Your task to perform on an android device: Find coffee shops on Maps Image 0: 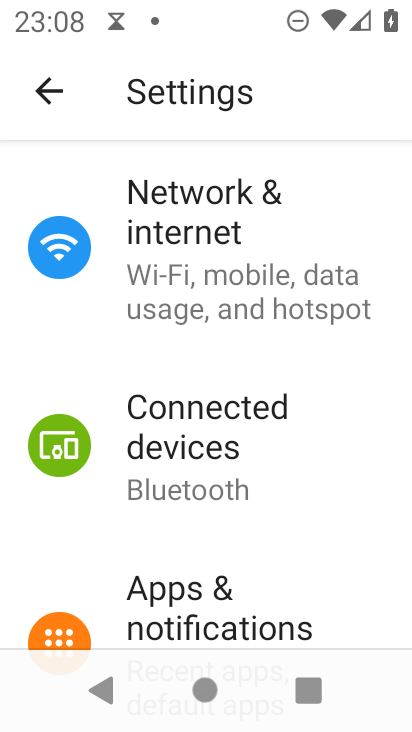
Step 0: press home button
Your task to perform on an android device: Find coffee shops on Maps Image 1: 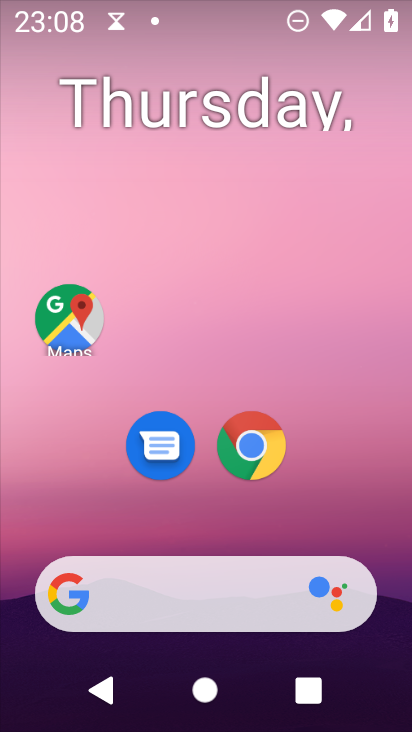
Step 1: drag from (230, 724) to (234, 80)
Your task to perform on an android device: Find coffee shops on Maps Image 2: 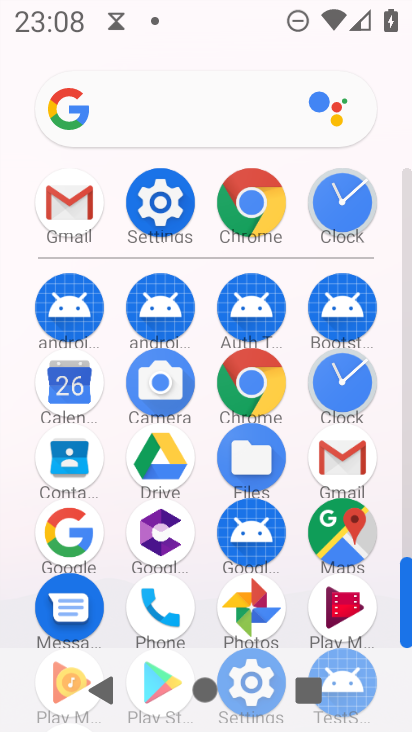
Step 2: click (338, 532)
Your task to perform on an android device: Find coffee shops on Maps Image 3: 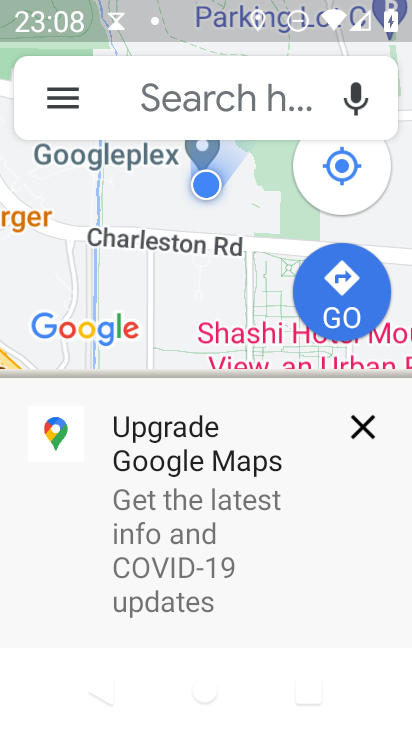
Step 3: click (208, 93)
Your task to perform on an android device: Find coffee shops on Maps Image 4: 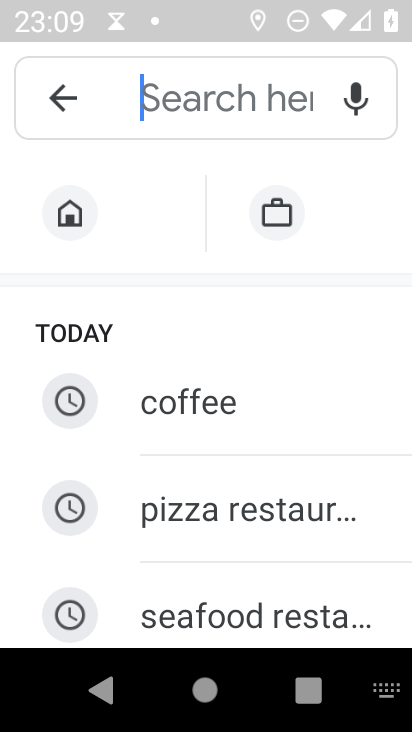
Step 4: type "coffee shops"
Your task to perform on an android device: Find coffee shops on Maps Image 5: 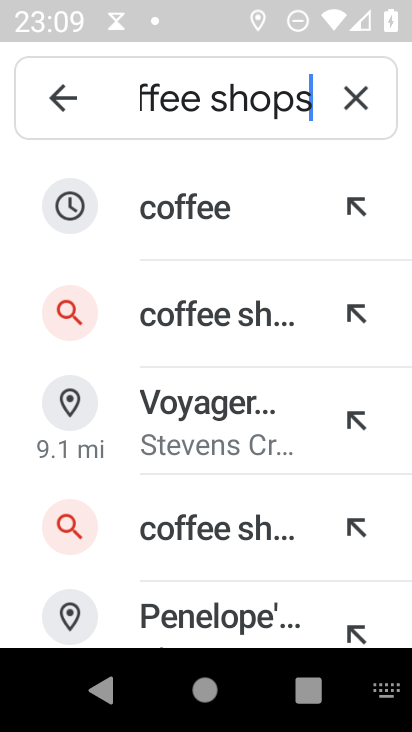
Step 5: click (192, 318)
Your task to perform on an android device: Find coffee shops on Maps Image 6: 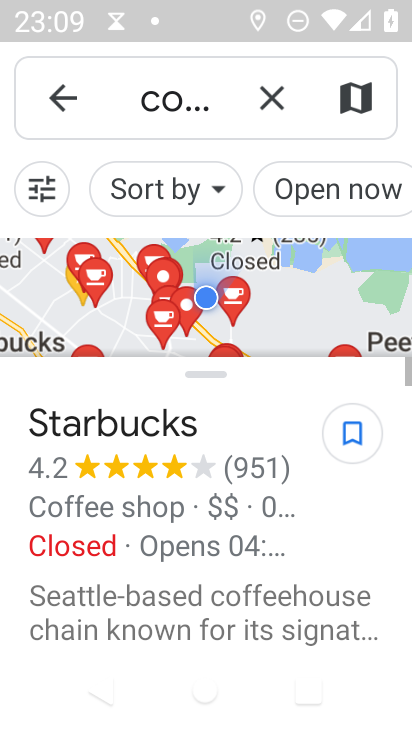
Step 6: task complete